Your task to perform on an android device: search for starred emails in the gmail app Image 0: 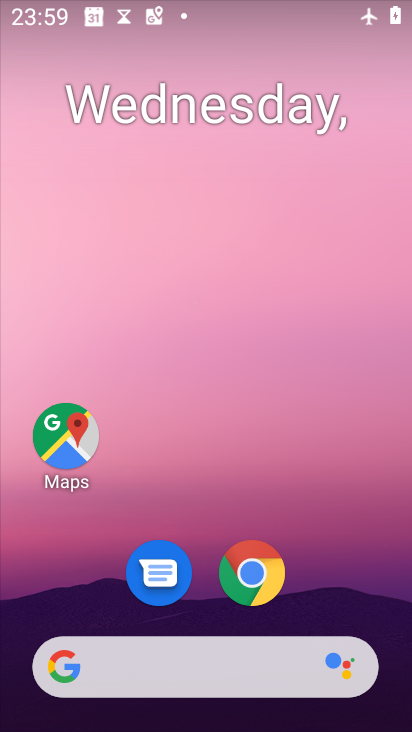
Step 0: drag from (315, 565) to (315, 225)
Your task to perform on an android device: search for starred emails in the gmail app Image 1: 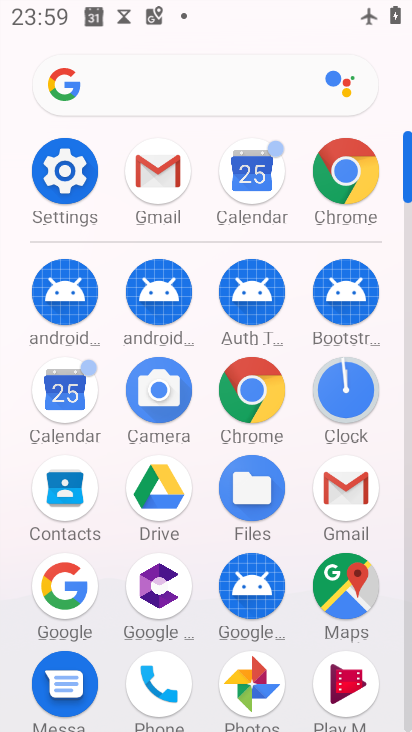
Step 1: click (338, 482)
Your task to perform on an android device: search for starred emails in the gmail app Image 2: 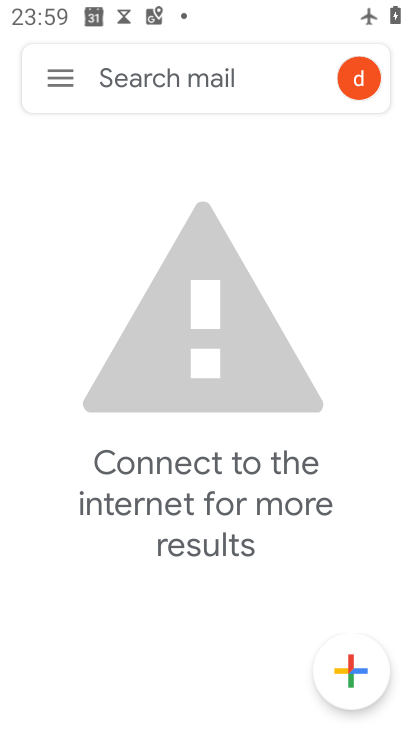
Step 2: click (59, 75)
Your task to perform on an android device: search for starred emails in the gmail app Image 3: 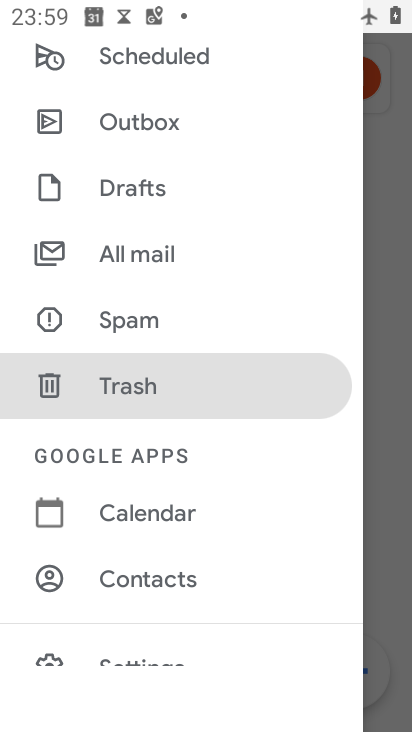
Step 3: drag from (163, 185) to (174, 516)
Your task to perform on an android device: search for starred emails in the gmail app Image 4: 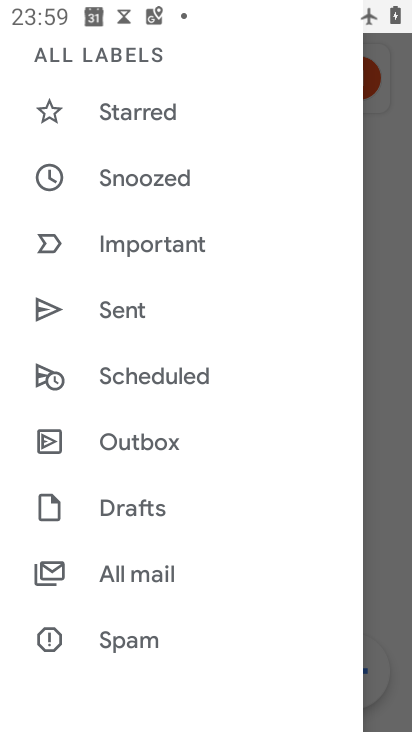
Step 4: click (138, 112)
Your task to perform on an android device: search for starred emails in the gmail app Image 5: 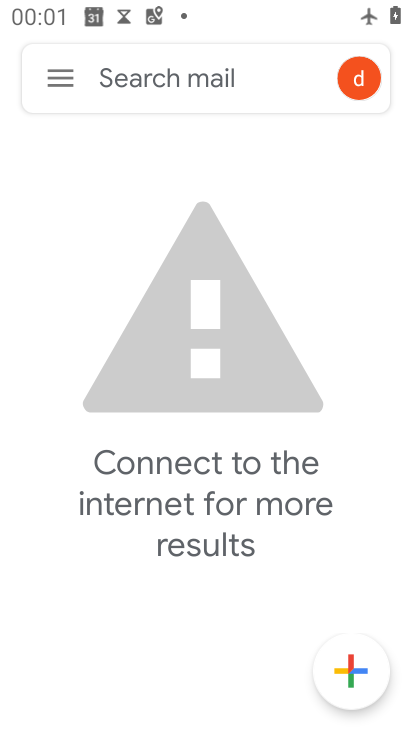
Step 5: click (53, 76)
Your task to perform on an android device: search for starred emails in the gmail app Image 6: 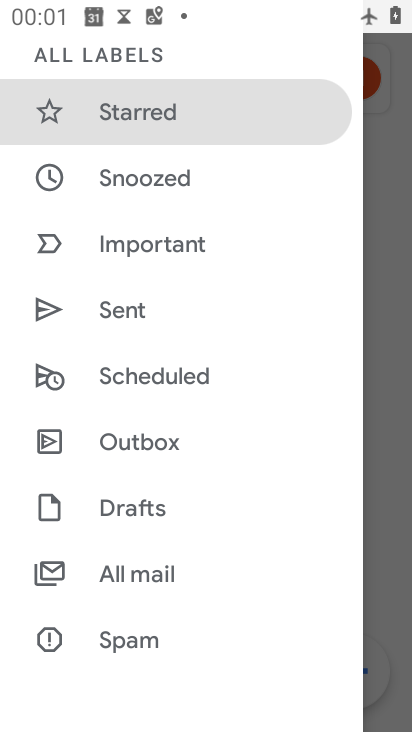
Step 6: task complete